Your task to perform on an android device: Go to wifi settings Image 0: 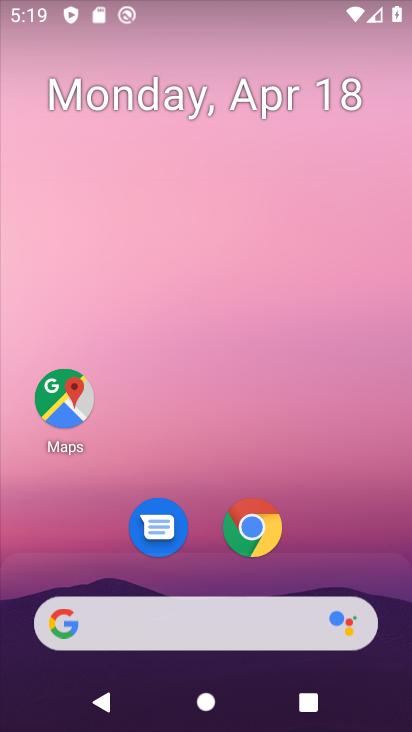
Step 0: drag from (213, 505) to (368, 497)
Your task to perform on an android device: Go to wifi settings Image 1: 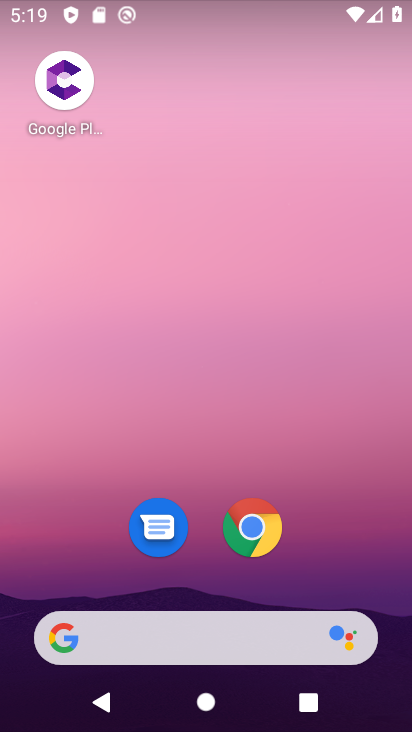
Step 1: drag from (219, 573) to (328, 3)
Your task to perform on an android device: Go to wifi settings Image 2: 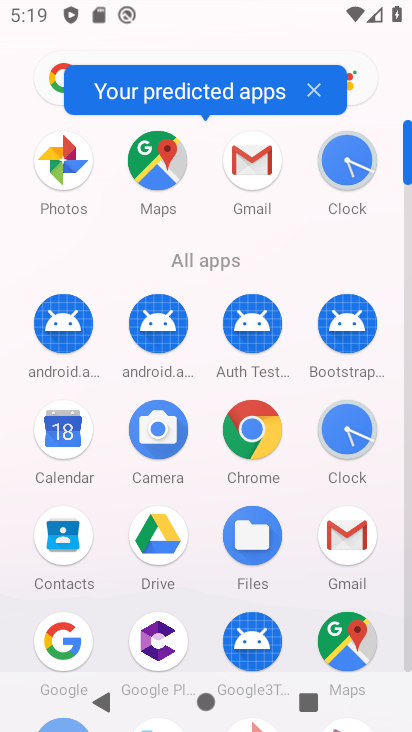
Step 2: drag from (201, 585) to (276, 129)
Your task to perform on an android device: Go to wifi settings Image 3: 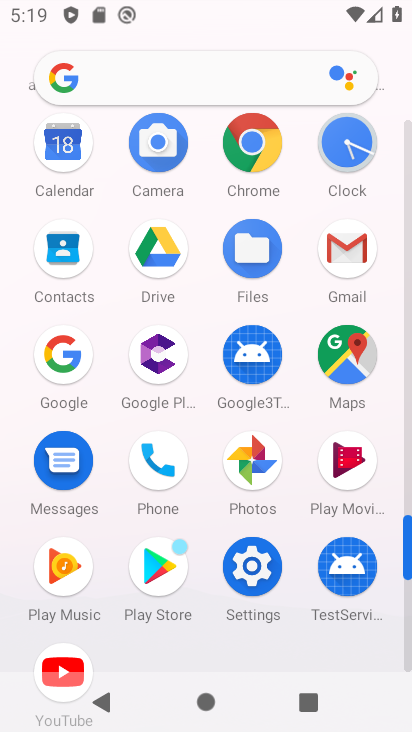
Step 3: click (253, 564)
Your task to perform on an android device: Go to wifi settings Image 4: 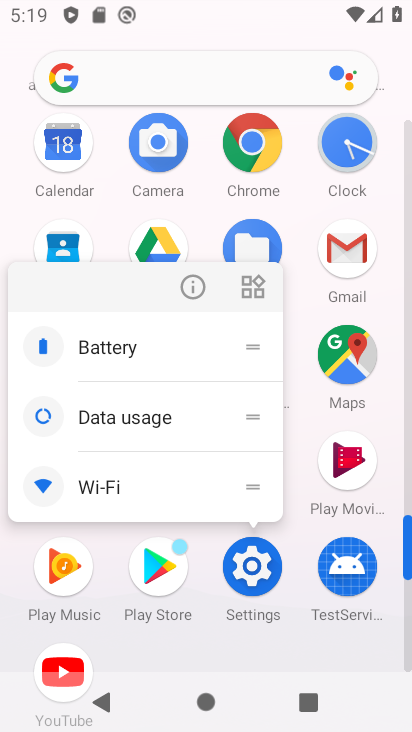
Step 4: click (143, 496)
Your task to perform on an android device: Go to wifi settings Image 5: 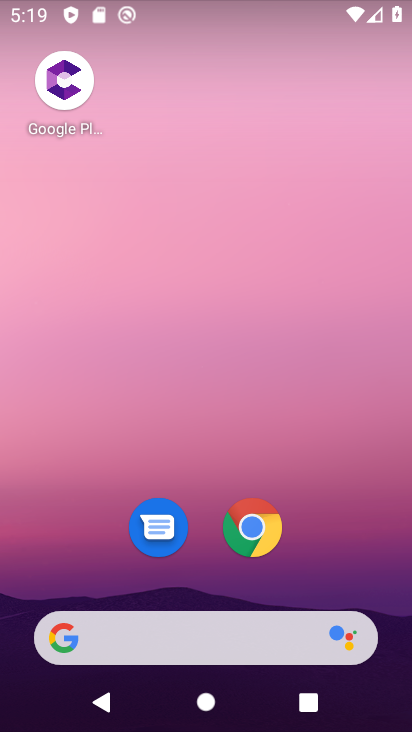
Step 5: drag from (216, 510) to (322, 1)
Your task to perform on an android device: Go to wifi settings Image 6: 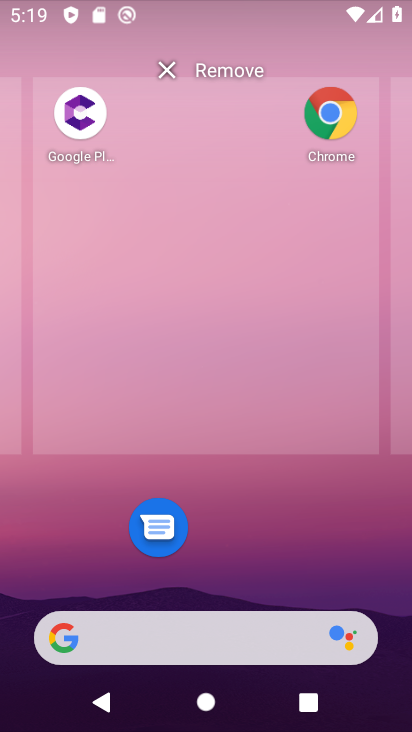
Step 6: click (317, 562)
Your task to perform on an android device: Go to wifi settings Image 7: 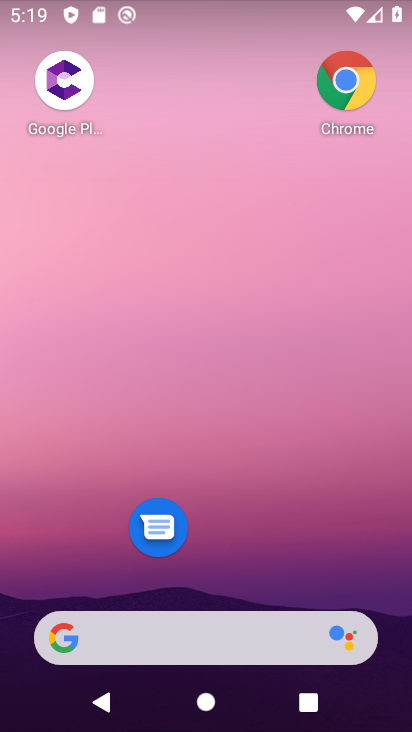
Step 7: drag from (248, 487) to (235, 7)
Your task to perform on an android device: Go to wifi settings Image 8: 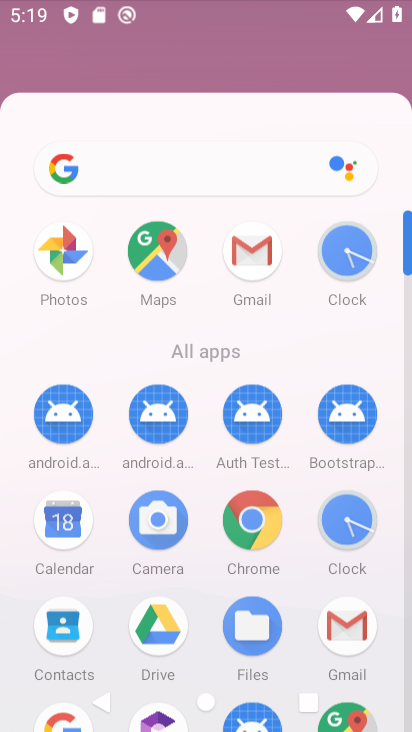
Step 8: drag from (206, 595) to (231, 9)
Your task to perform on an android device: Go to wifi settings Image 9: 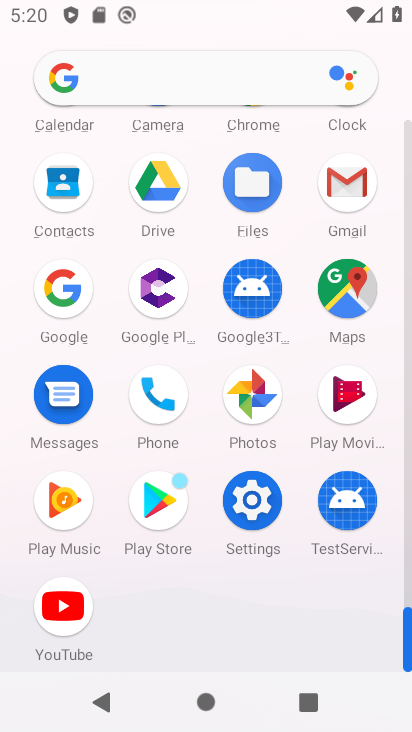
Step 9: click (252, 517)
Your task to perform on an android device: Go to wifi settings Image 10: 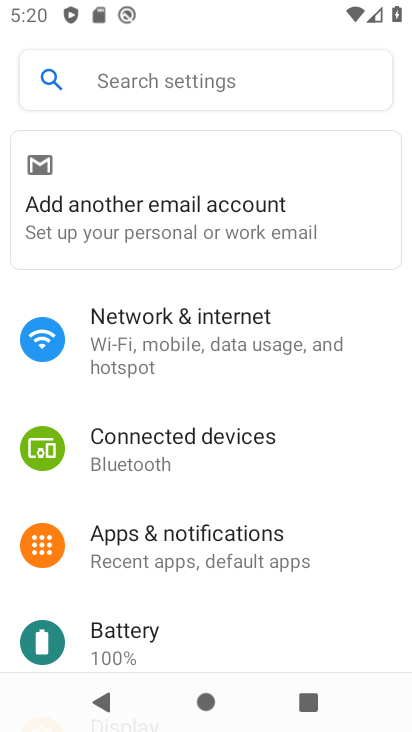
Step 10: click (201, 335)
Your task to perform on an android device: Go to wifi settings Image 11: 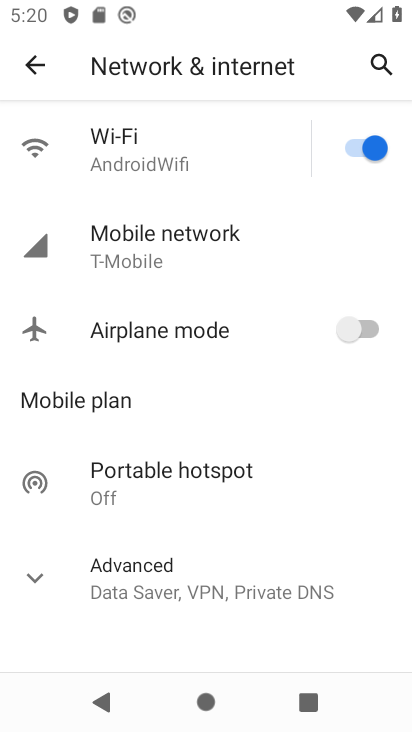
Step 11: click (211, 146)
Your task to perform on an android device: Go to wifi settings Image 12: 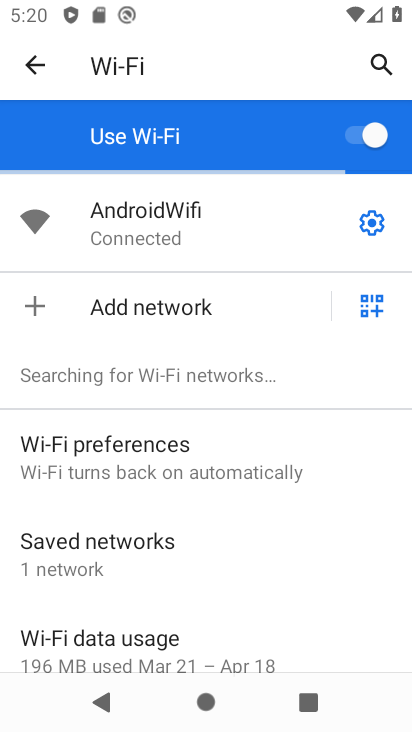
Step 12: task complete